Your task to perform on an android device: When is my next meeting? Image 0: 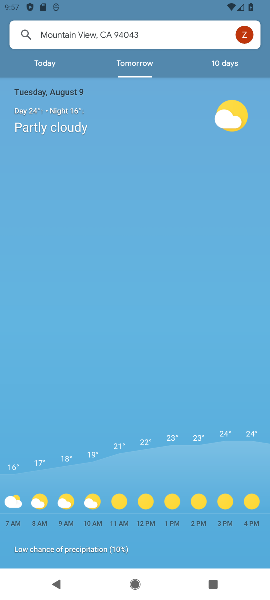
Step 0: press back button
Your task to perform on an android device: When is my next meeting? Image 1: 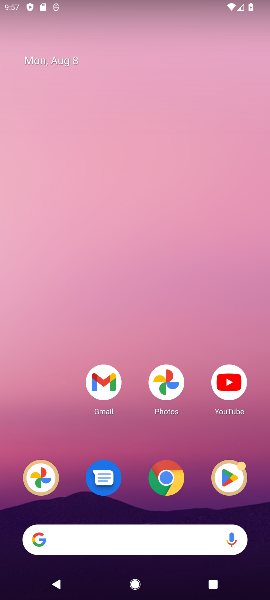
Step 1: drag from (175, 505) to (129, 134)
Your task to perform on an android device: When is my next meeting? Image 2: 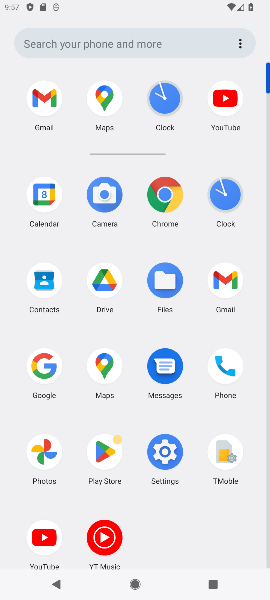
Step 2: click (50, 200)
Your task to perform on an android device: When is my next meeting? Image 3: 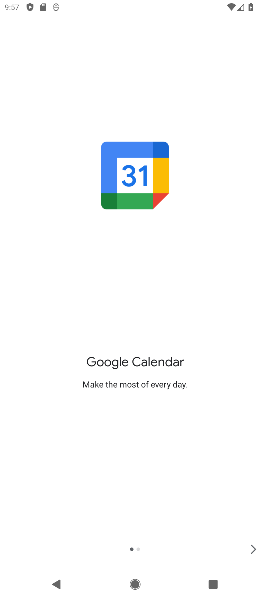
Step 3: click (258, 545)
Your task to perform on an android device: When is my next meeting? Image 4: 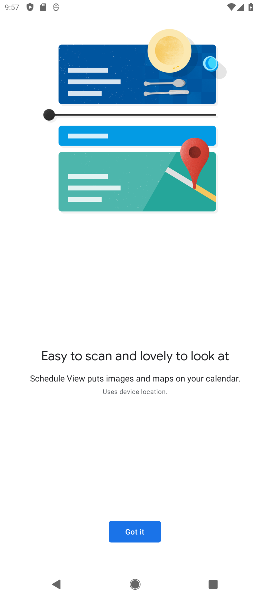
Step 4: click (138, 535)
Your task to perform on an android device: When is my next meeting? Image 5: 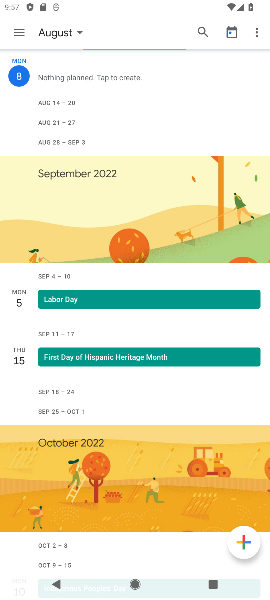
Step 5: click (14, 30)
Your task to perform on an android device: When is my next meeting? Image 6: 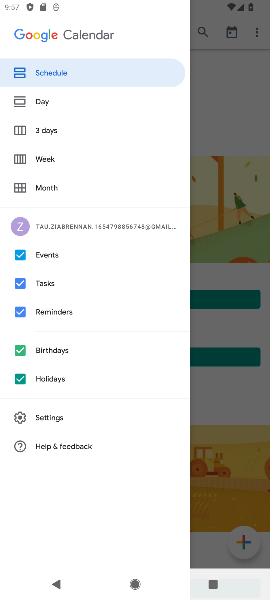
Step 6: click (49, 187)
Your task to perform on an android device: When is my next meeting? Image 7: 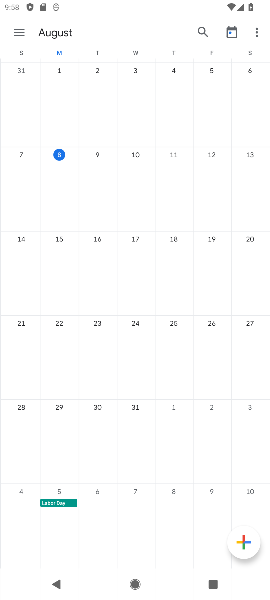
Step 7: click (43, 494)
Your task to perform on an android device: When is my next meeting? Image 8: 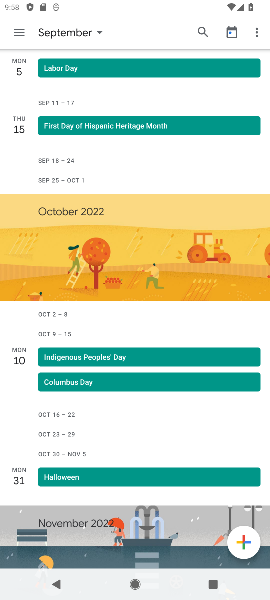
Step 8: task complete